Your task to perform on an android device: Search for a 1/4" hex shank drill bit on Lowe's. Image 0: 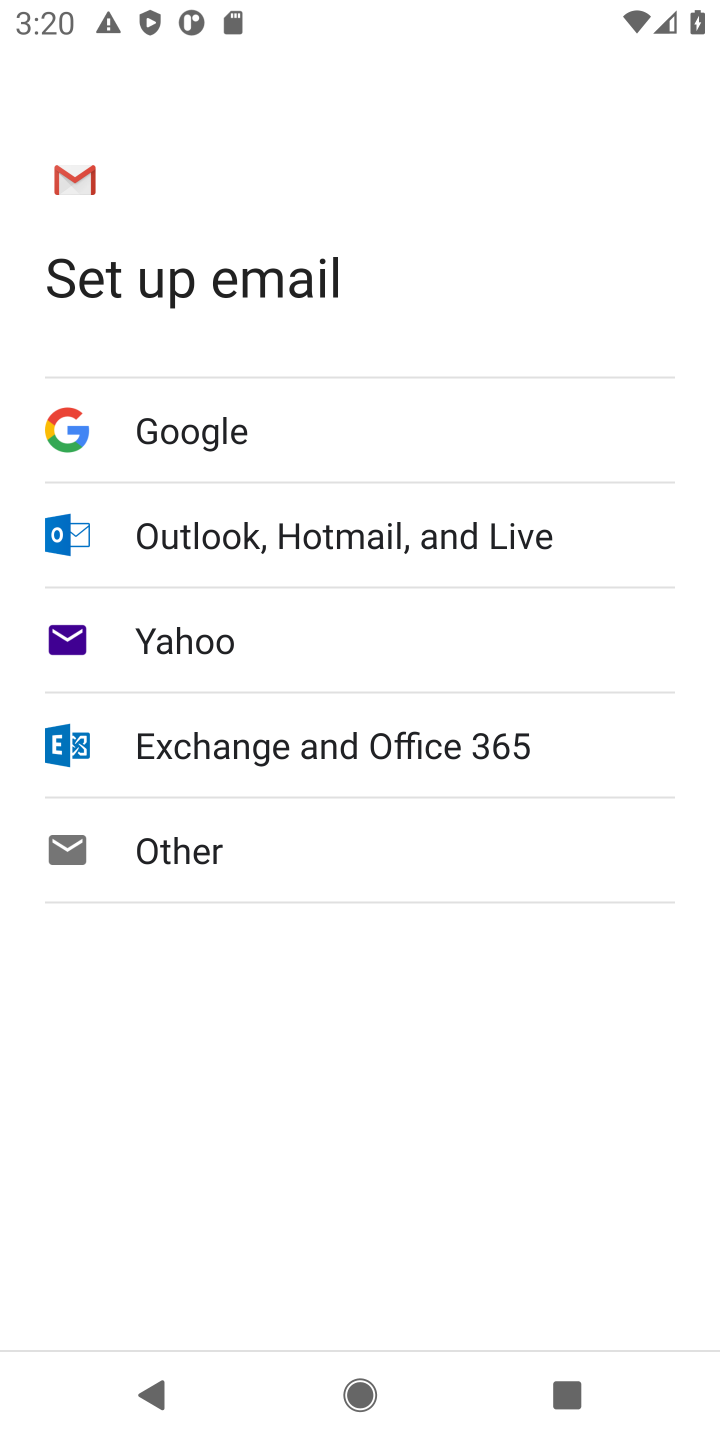
Step 0: press home button
Your task to perform on an android device: Search for a 1/4" hex shank drill bit on Lowe's. Image 1: 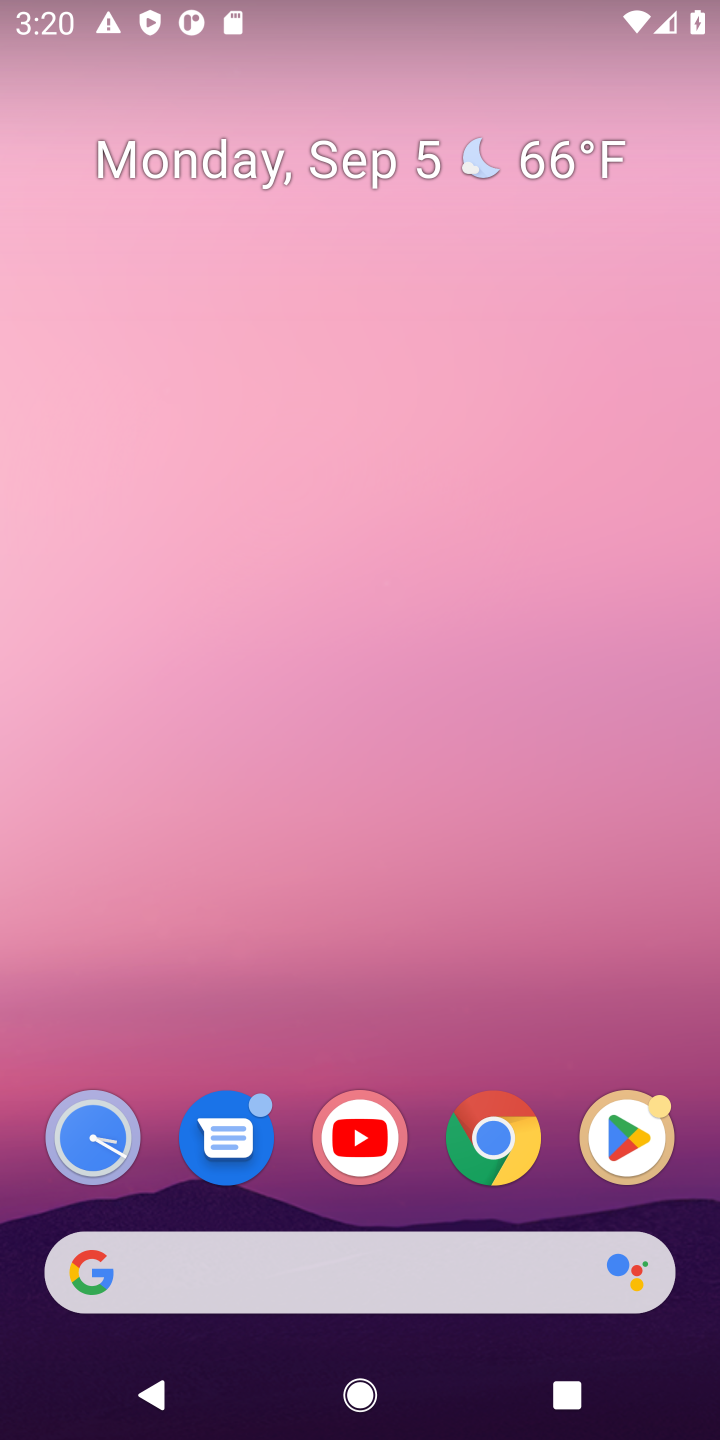
Step 1: click (497, 1115)
Your task to perform on an android device: Search for a 1/4" hex shank drill bit on Lowe's. Image 2: 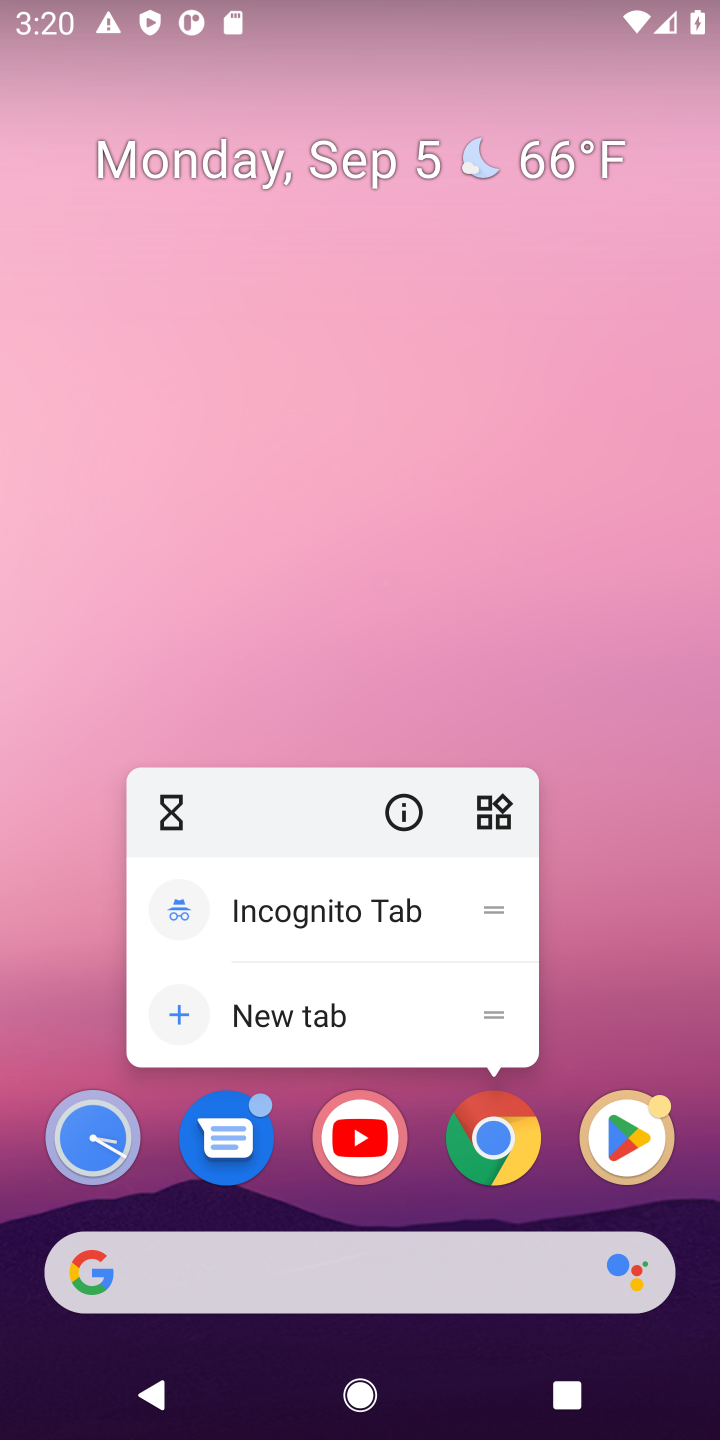
Step 2: click (497, 1115)
Your task to perform on an android device: Search for a 1/4" hex shank drill bit on Lowe's. Image 3: 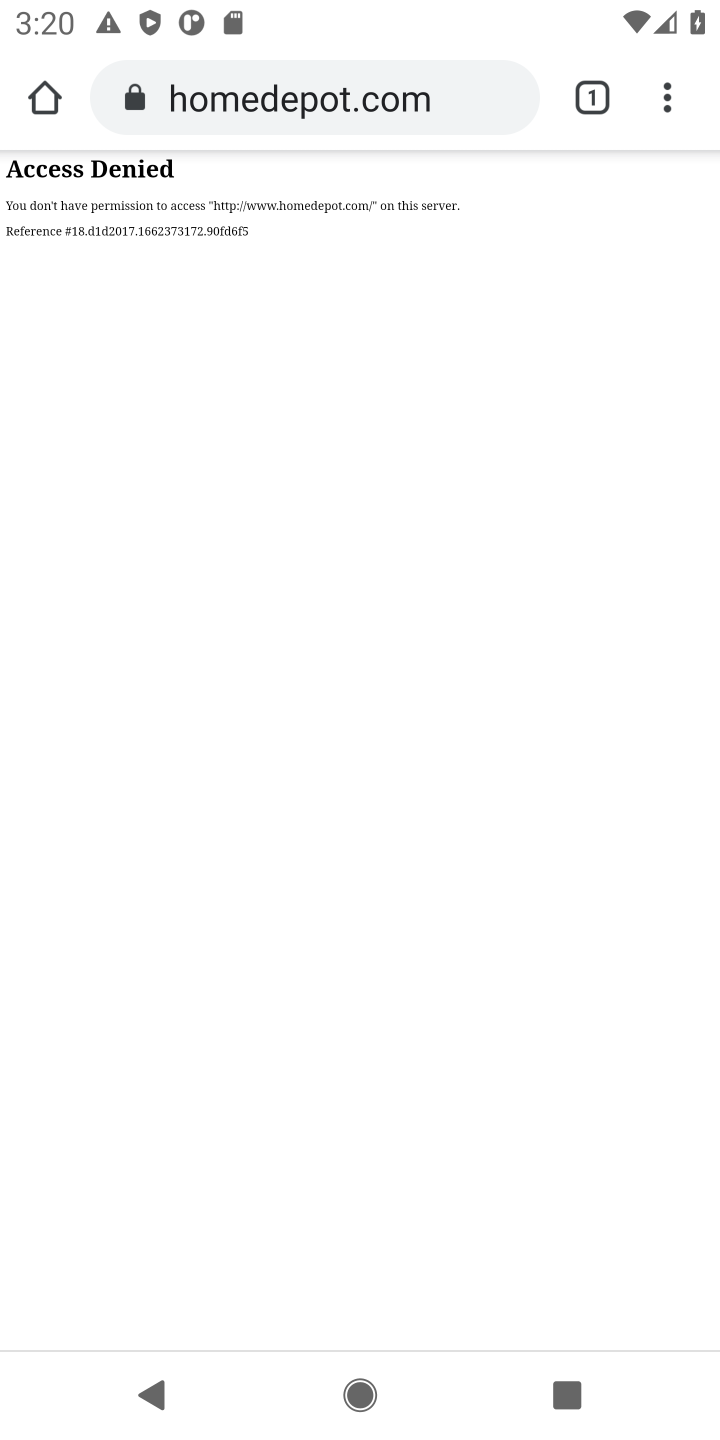
Step 3: click (286, 93)
Your task to perform on an android device: Search for a 1/4" hex shank drill bit on Lowe's. Image 4: 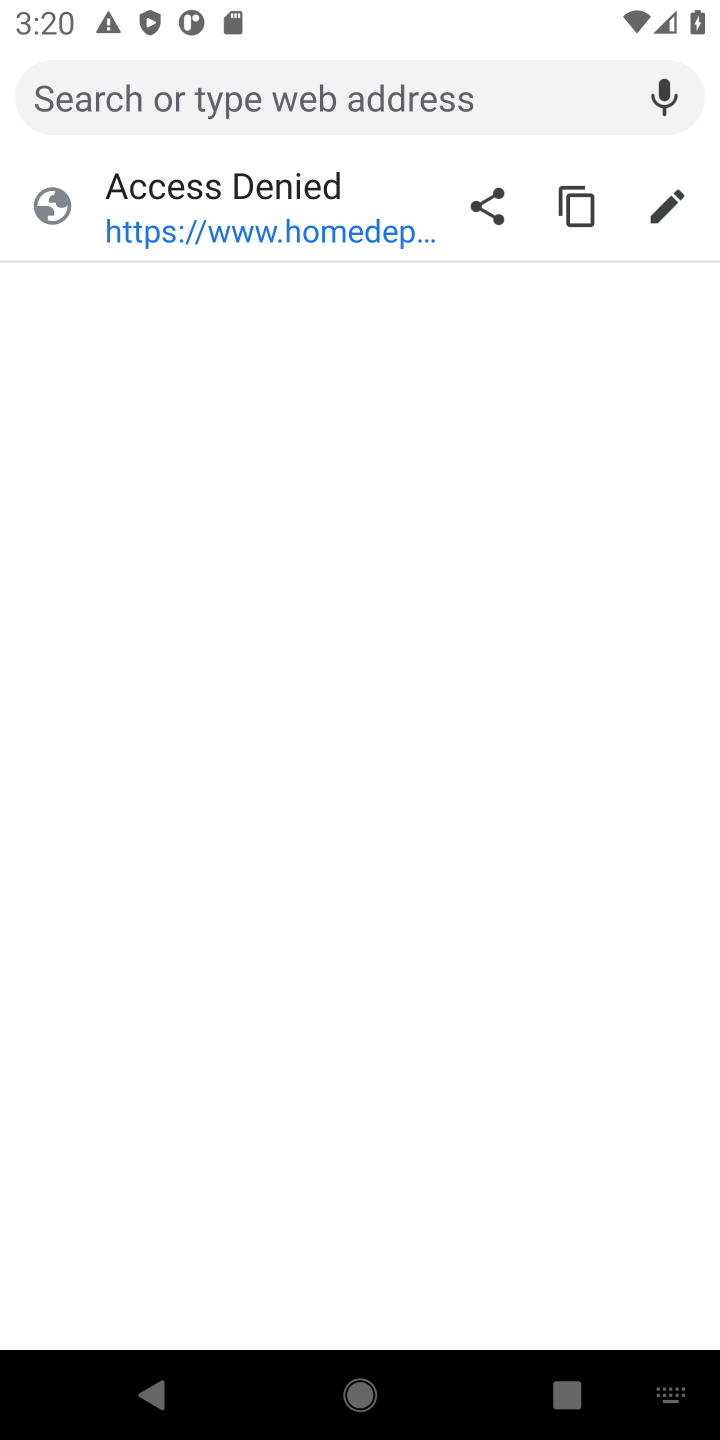
Step 4: type "lowes"
Your task to perform on an android device: Search for a 1/4" hex shank drill bit on Lowe's. Image 5: 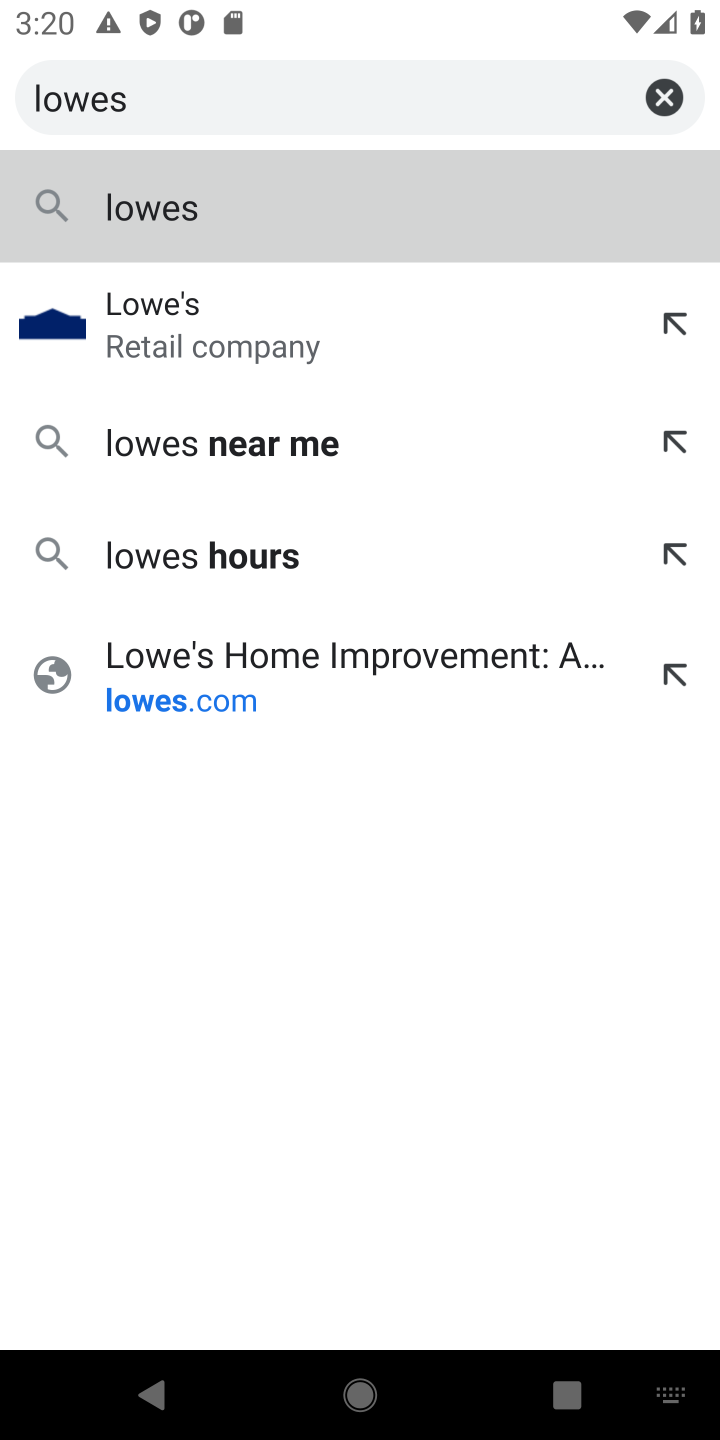
Step 5: click (311, 700)
Your task to perform on an android device: Search for a 1/4" hex shank drill bit on Lowe's. Image 6: 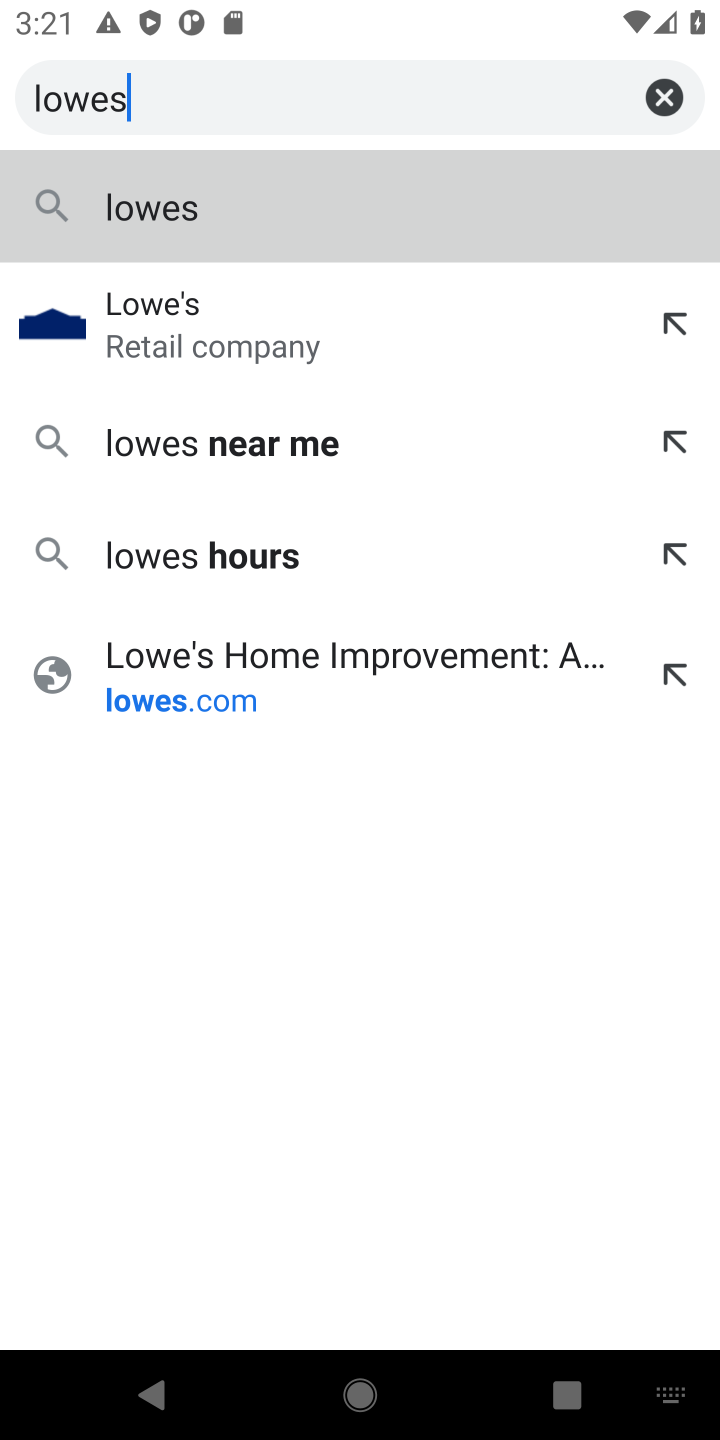
Step 6: click (298, 663)
Your task to perform on an android device: Search for a 1/4" hex shank drill bit on Lowe's. Image 7: 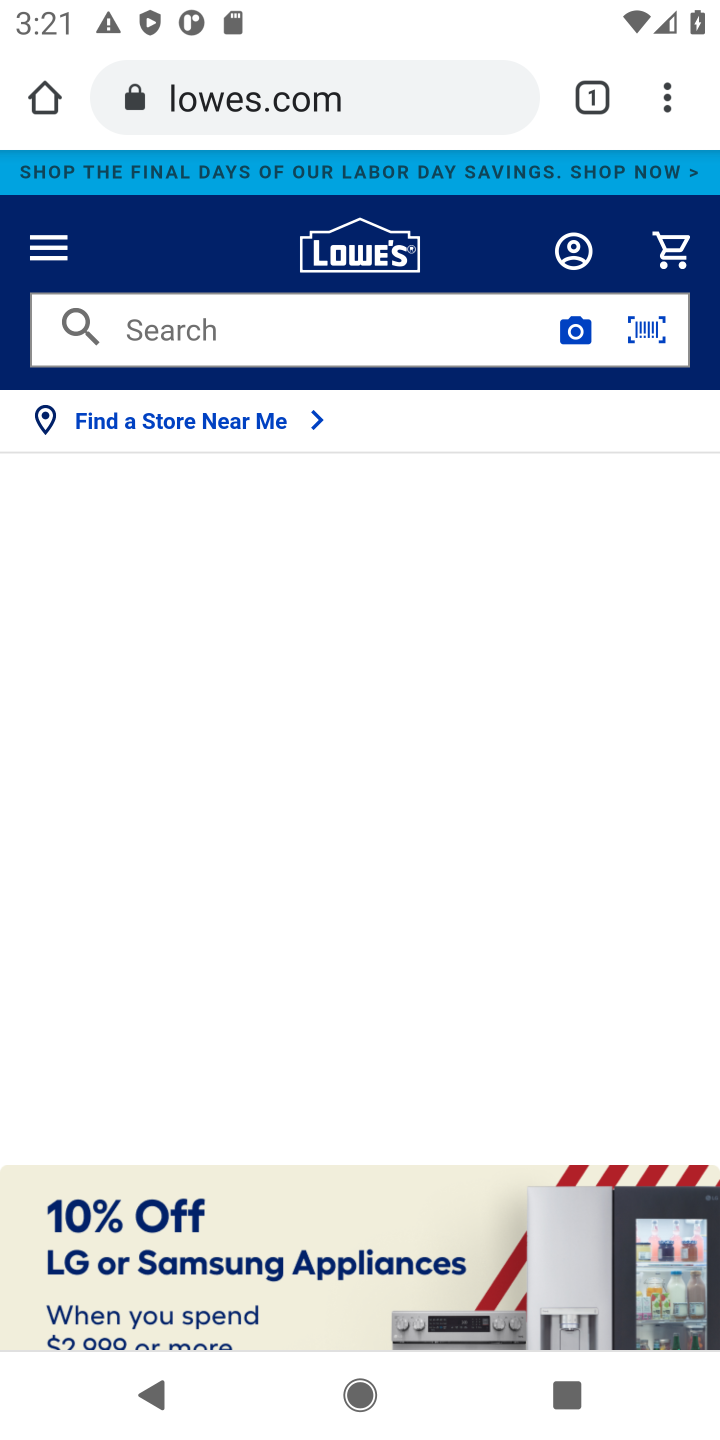
Step 7: click (320, 324)
Your task to perform on an android device: Search for a 1/4" hex shank drill bit on Lowe's. Image 8: 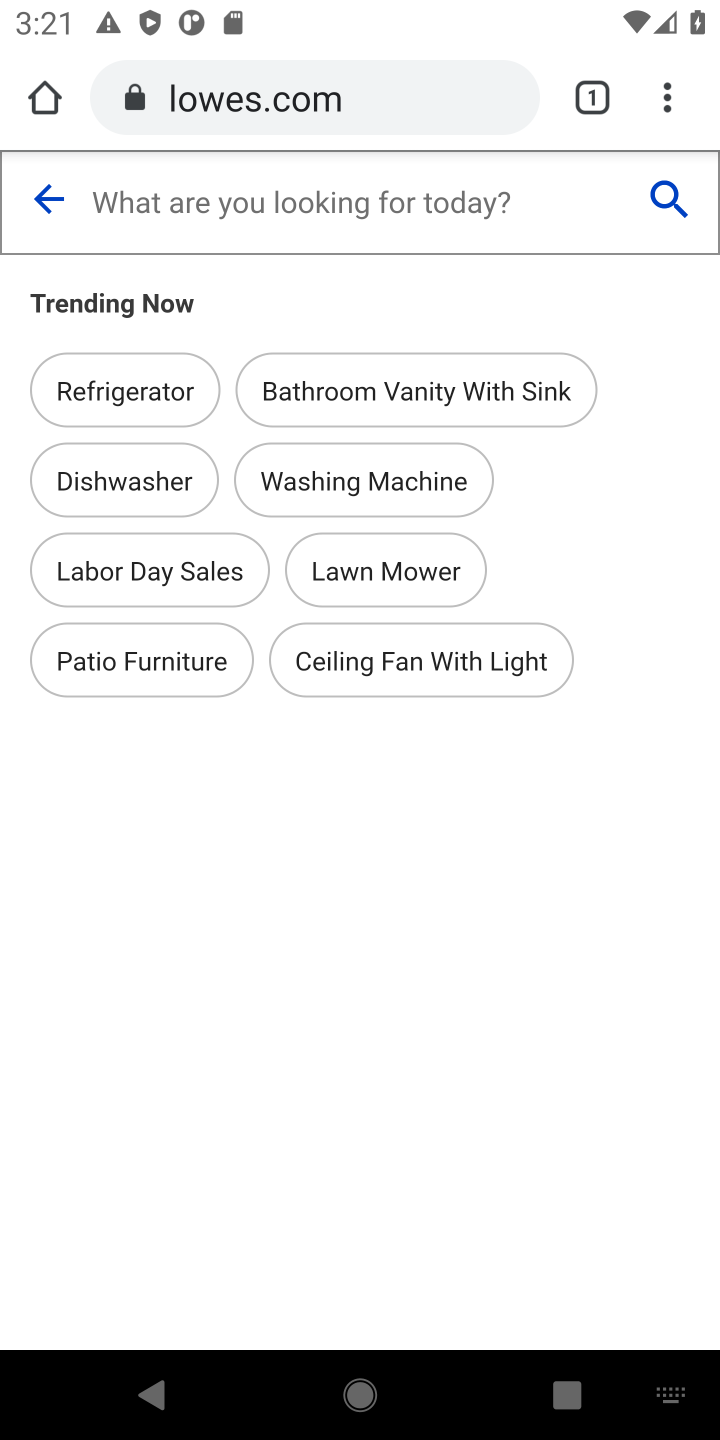
Step 8: type "1/4" hex shank drill bit"
Your task to perform on an android device: Search for a 1/4" hex shank drill bit on Lowe's. Image 9: 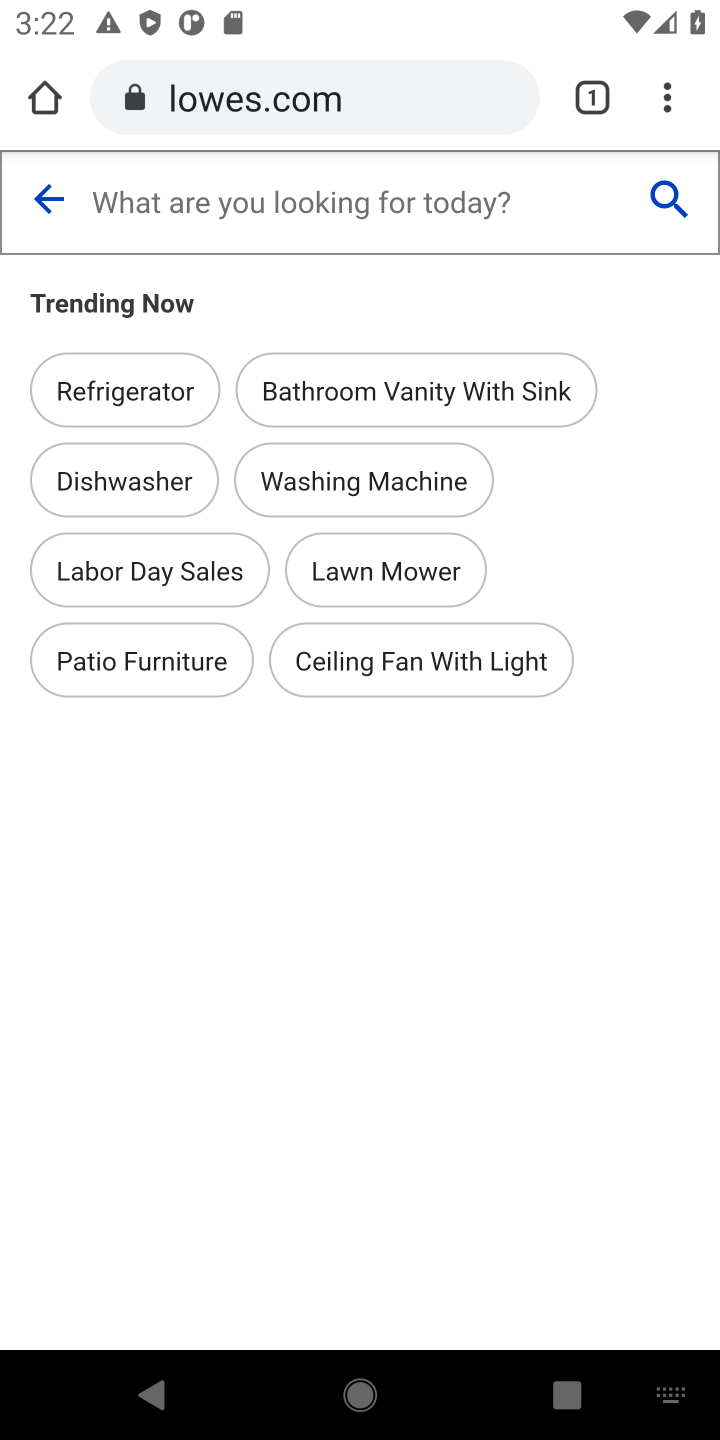
Step 9: click (449, 204)
Your task to perform on an android device: Search for a 1/4" hex shank drill bit on Lowe's. Image 10: 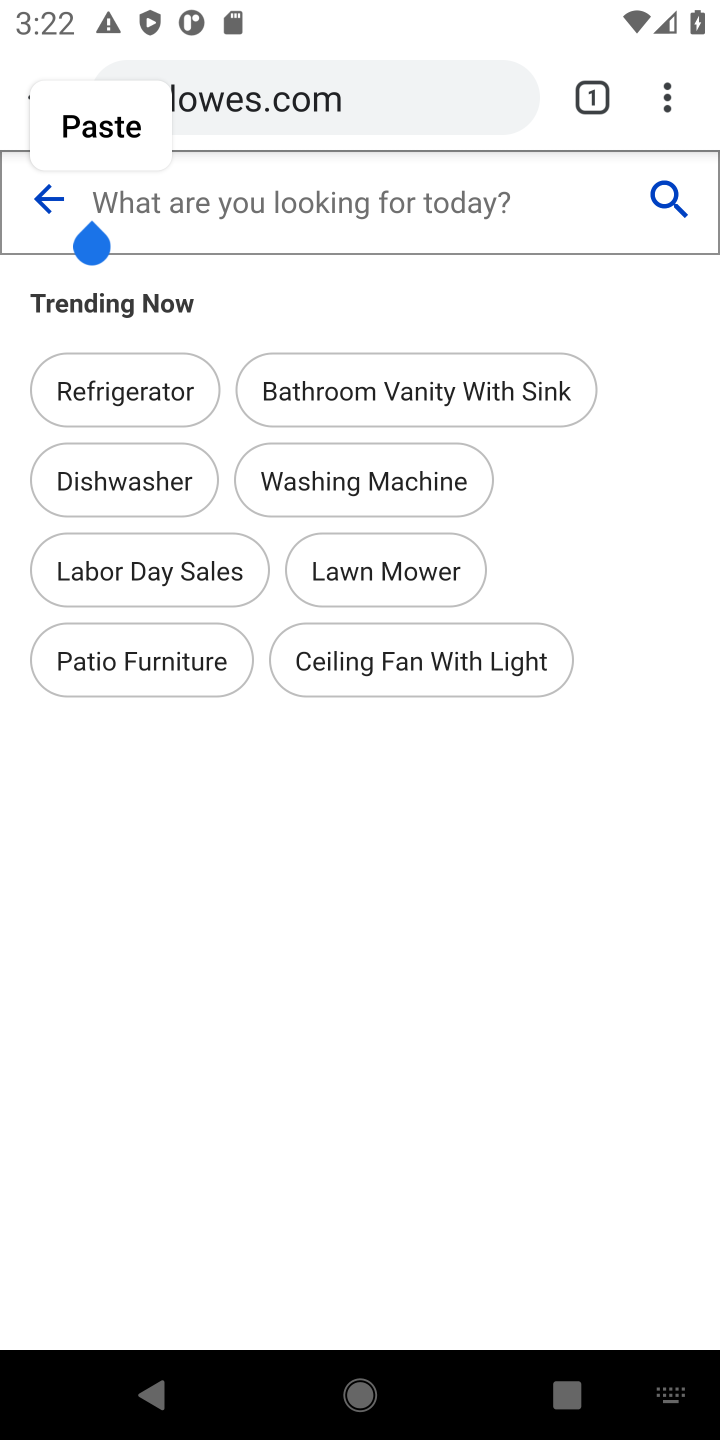
Step 10: type "hex shank drill bit"
Your task to perform on an android device: Search for a 1/4" hex shank drill bit on Lowe's. Image 11: 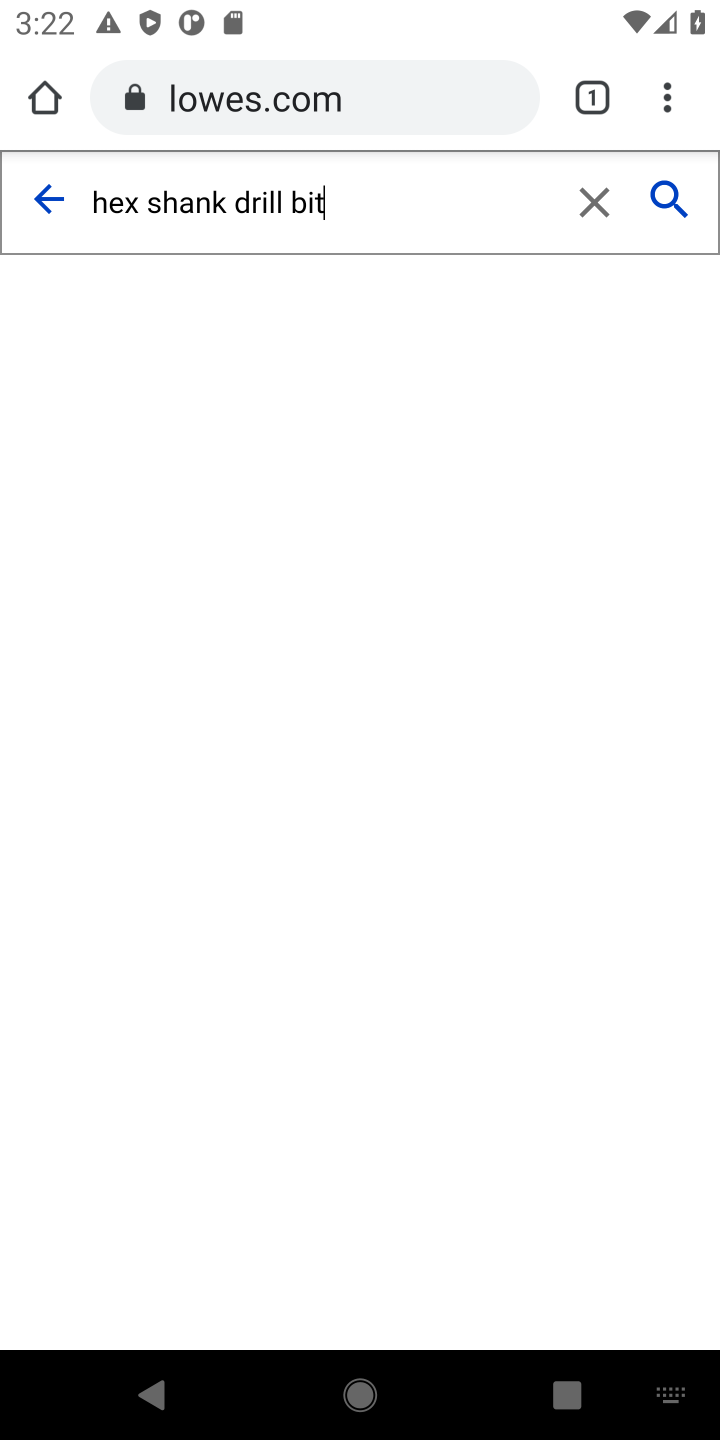
Step 11: type ""
Your task to perform on an android device: Search for a 1/4" hex shank drill bit on Lowe's. Image 12: 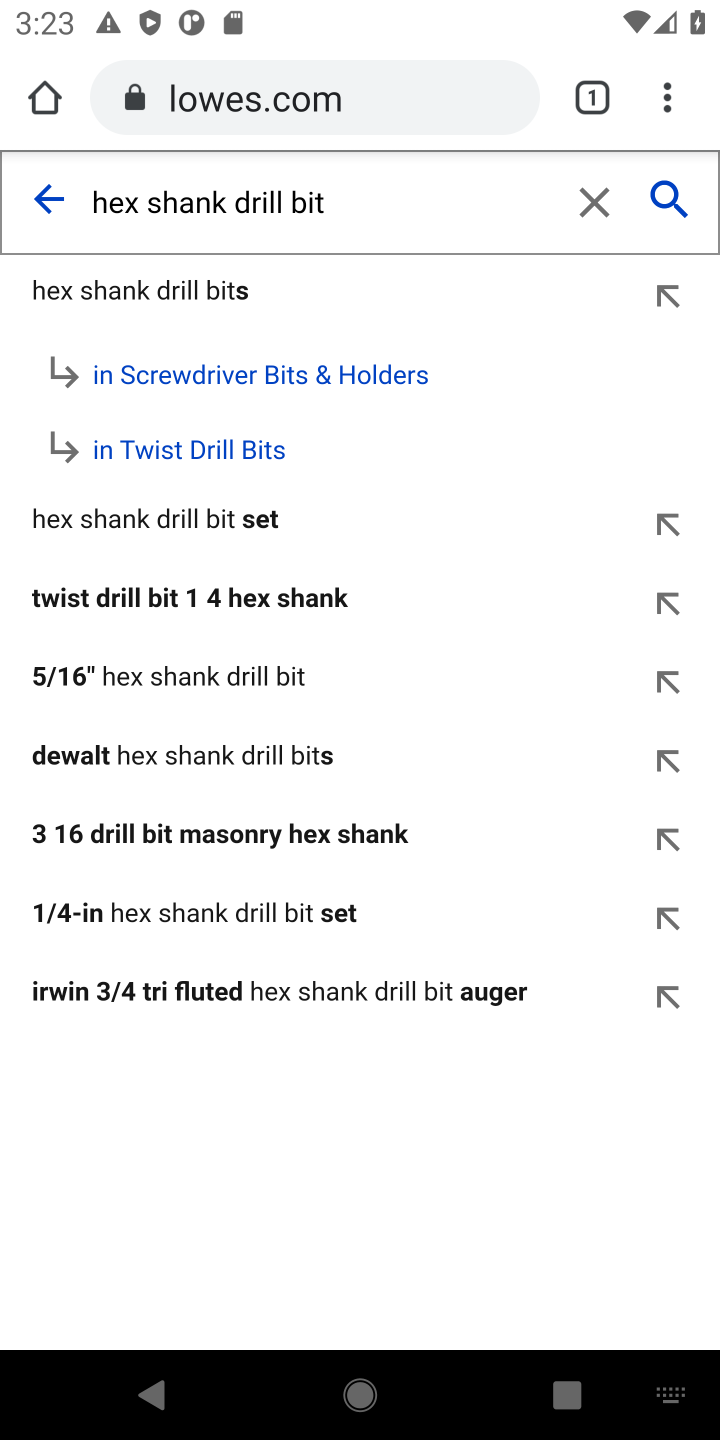
Step 12: click (321, 906)
Your task to perform on an android device: Search for a 1/4" hex shank drill bit on Lowe's. Image 13: 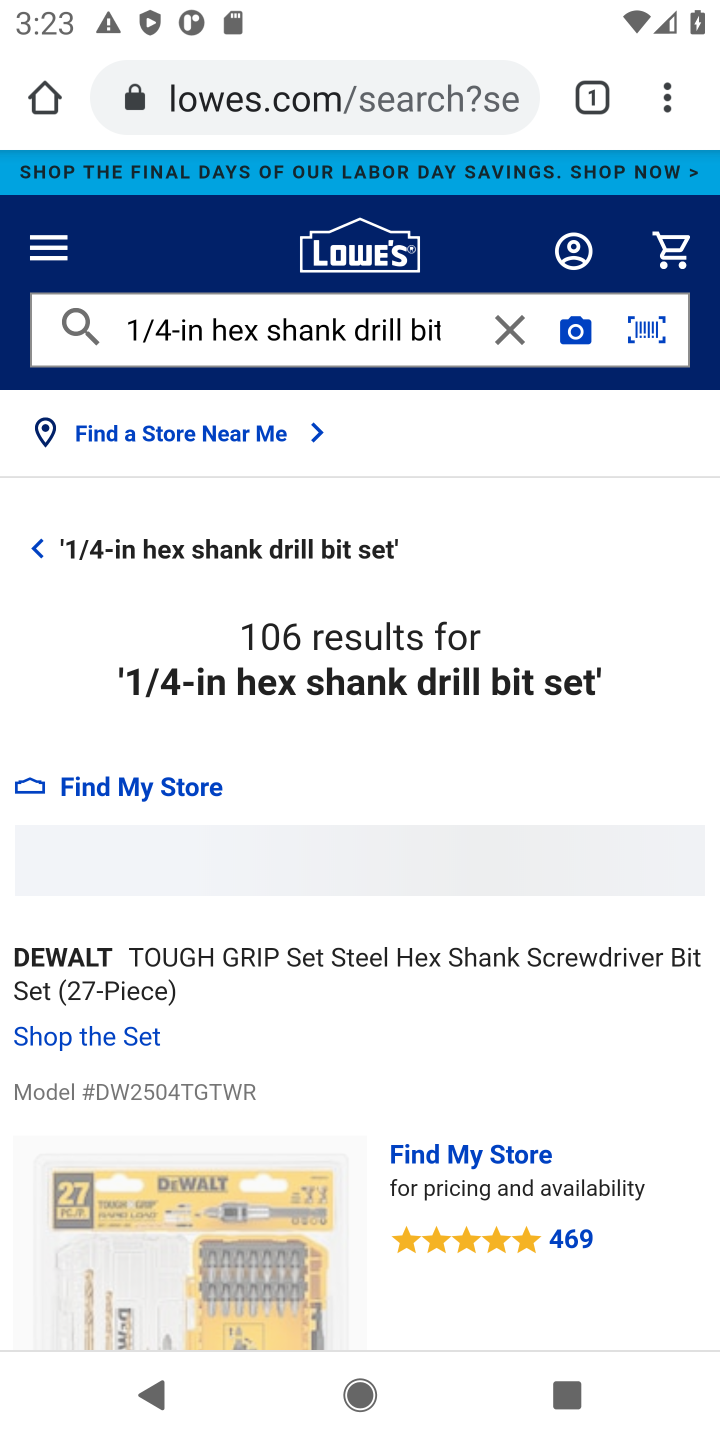
Step 13: task complete